Your task to perform on an android device: turn off priority inbox in the gmail app Image 0: 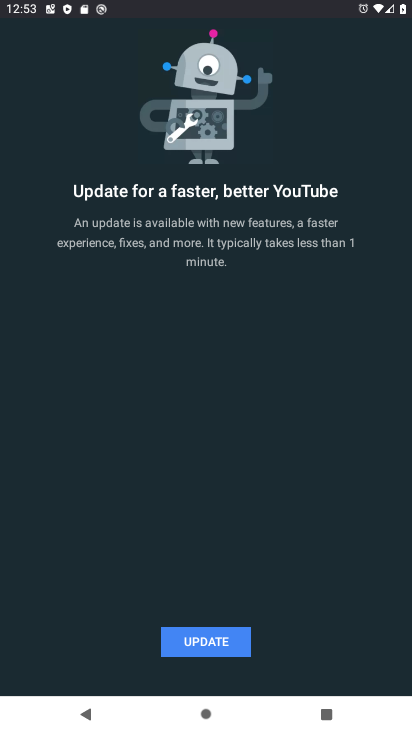
Step 0: press home button
Your task to perform on an android device: turn off priority inbox in the gmail app Image 1: 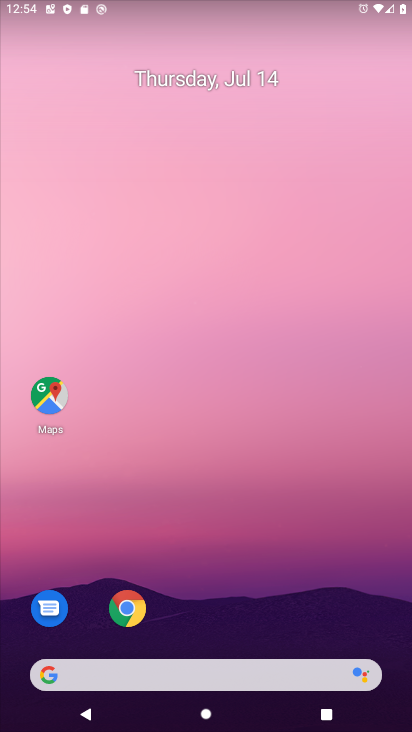
Step 1: drag from (179, 672) to (249, 191)
Your task to perform on an android device: turn off priority inbox in the gmail app Image 2: 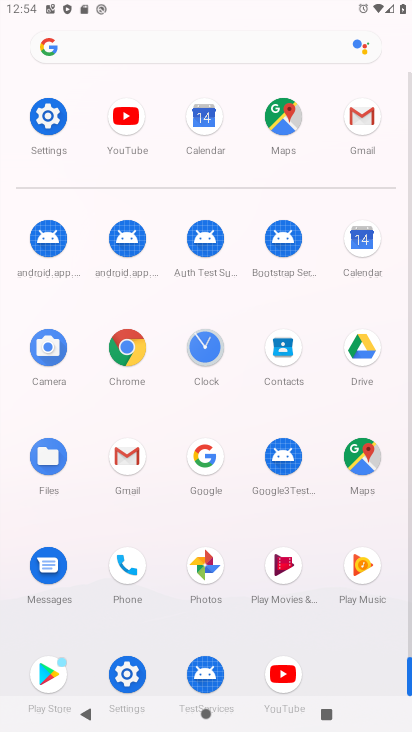
Step 2: click (360, 113)
Your task to perform on an android device: turn off priority inbox in the gmail app Image 3: 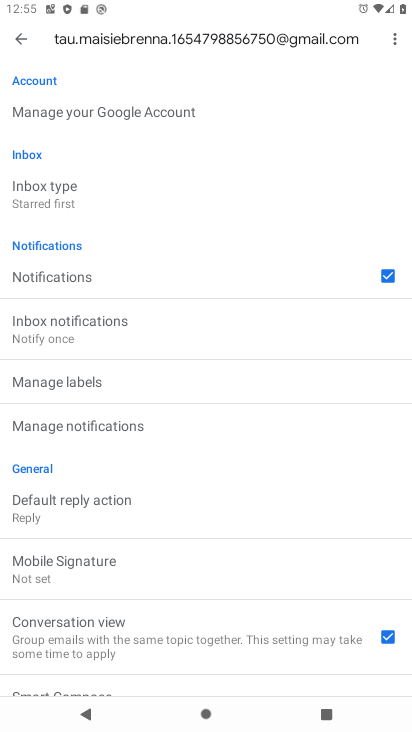
Step 3: click (42, 209)
Your task to perform on an android device: turn off priority inbox in the gmail app Image 4: 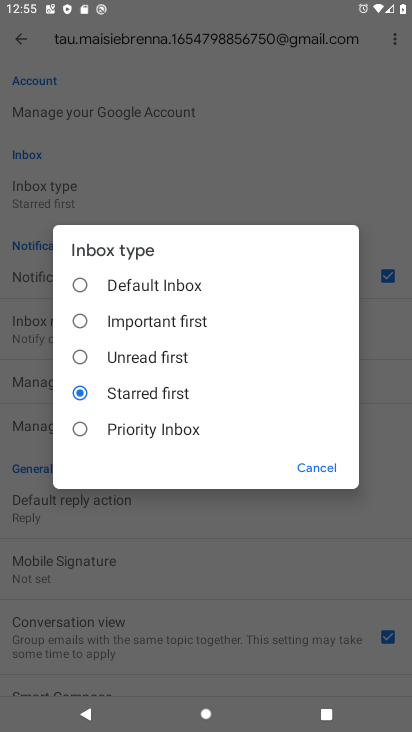
Step 4: click (76, 427)
Your task to perform on an android device: turn off priority inbox in the gmail app Image 5: 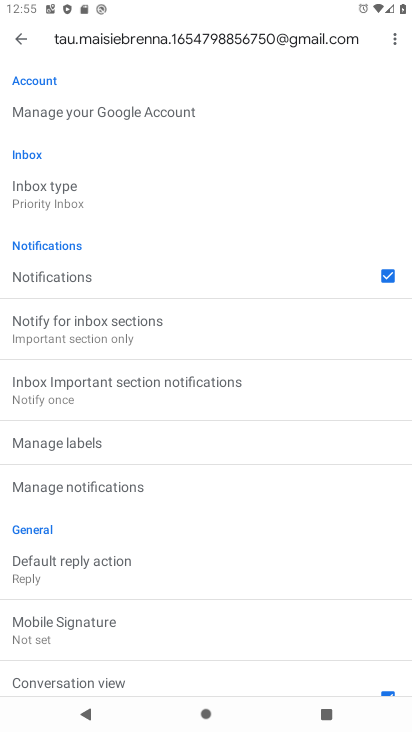
Step 5: task complete